Your task to perform on an android device: What's the weather today? Image 0: 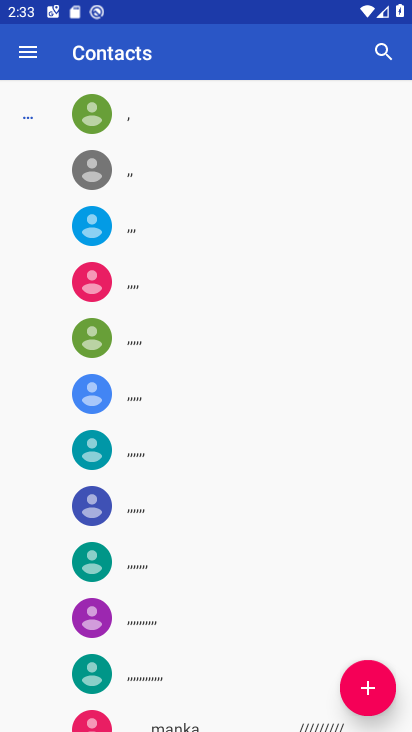
Step 0: press home button
Your task to perform on an android device: What's the weather today? Image 1: 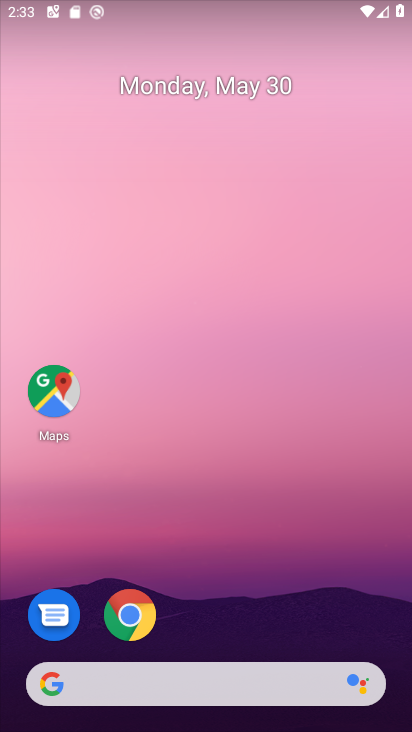
Step 1: click (138, 681)
Your task to perform on an android device: What's the weather today? Image 2: 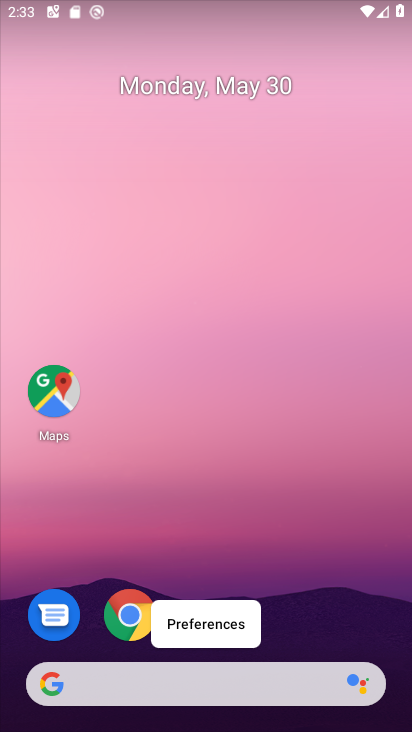
Step 2: click (146, 681)
Your task to perform on an android device: What's the weather today? Image 3: 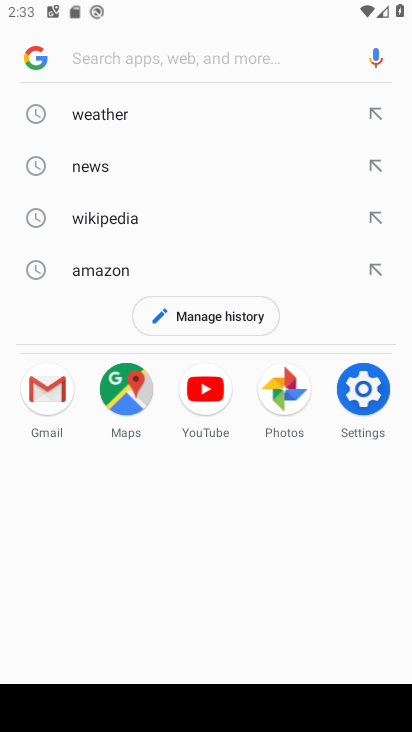
Step 3: click (109, 114)
Your task to perform on an android device: What's the weather today? Image 4: 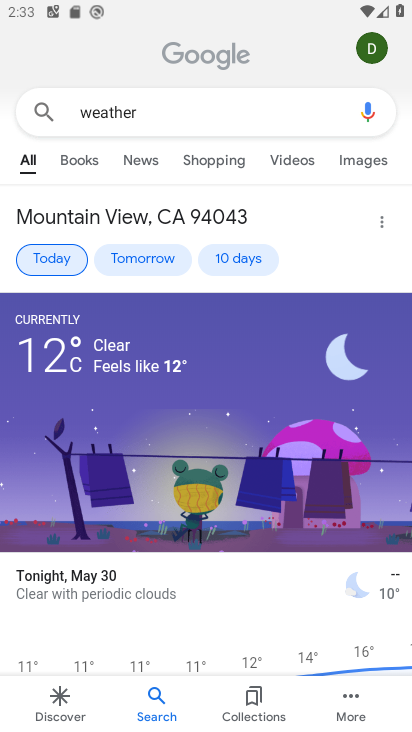
Step 4: click (71, 261)
Your task to perform on an android device: What's the weather today? Image 5: 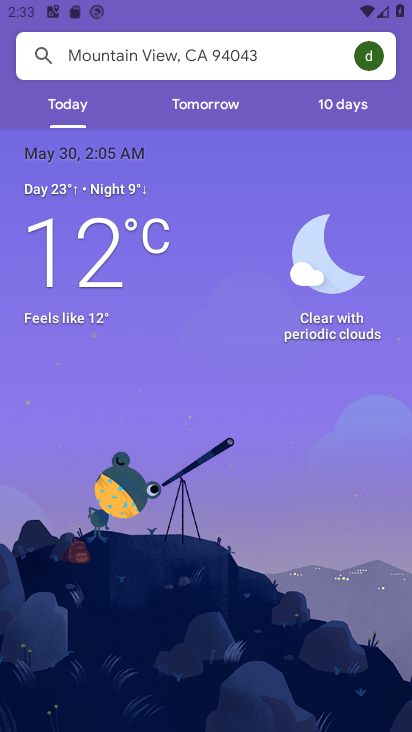
Step 5: task complete